Your task to perform on an android device: toggle data saver in the chrome app Image 0: 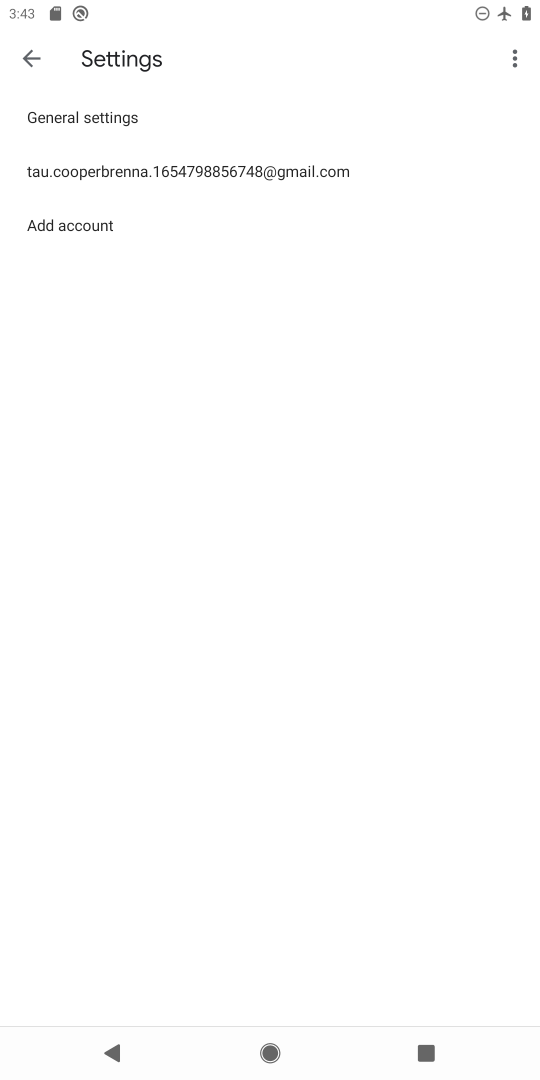
Step 0: press home button
Your task to perform on an android device: toggle data saver in the chrome app Image 1: 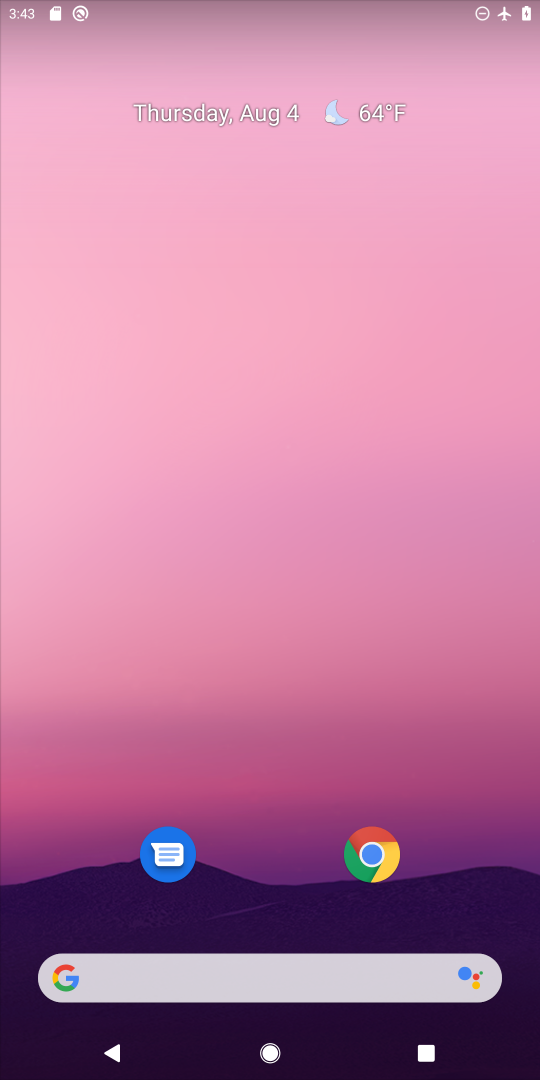
Step 1: click (387, 863)
Your task to perform on an android device: toggle data saver in the chrome app Image 2: 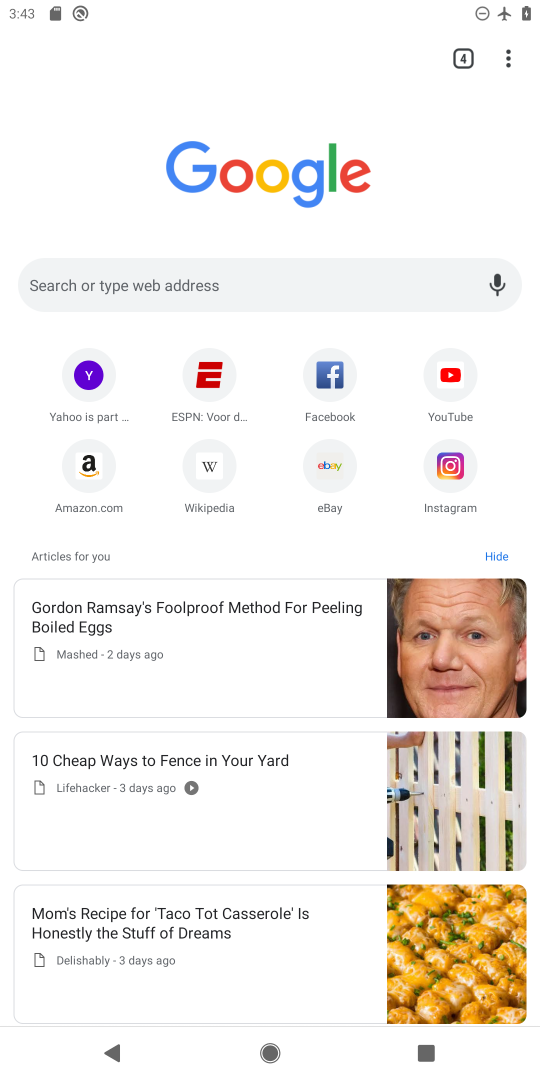
Step 2: click (503, 59)
Your task to perform on an android device: toggle data saver in the chrome app Image 3: 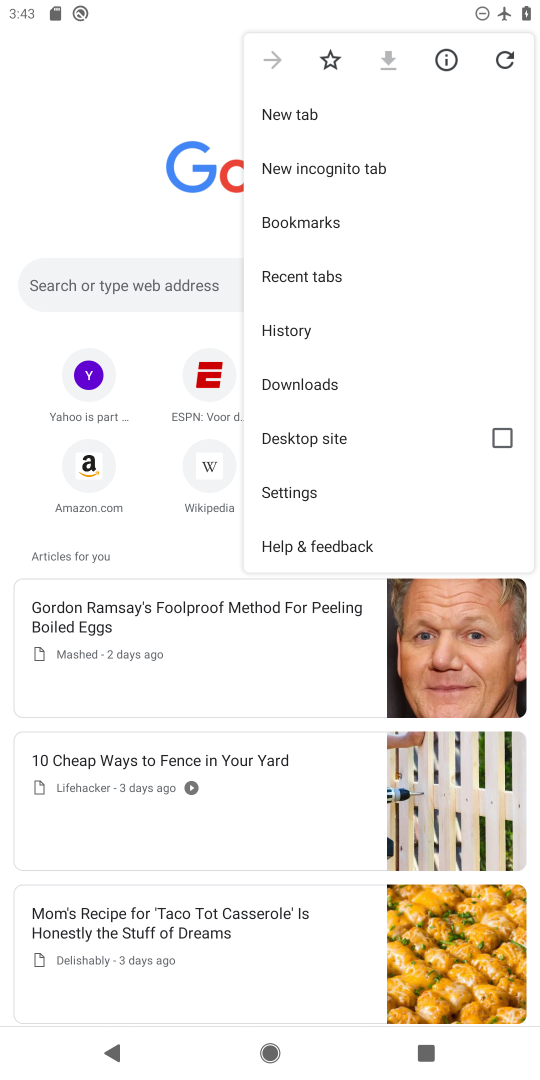
Step 3: click (300, 498)
Your task to perform on an android device: toggle data saver in the chrome app Image 4: 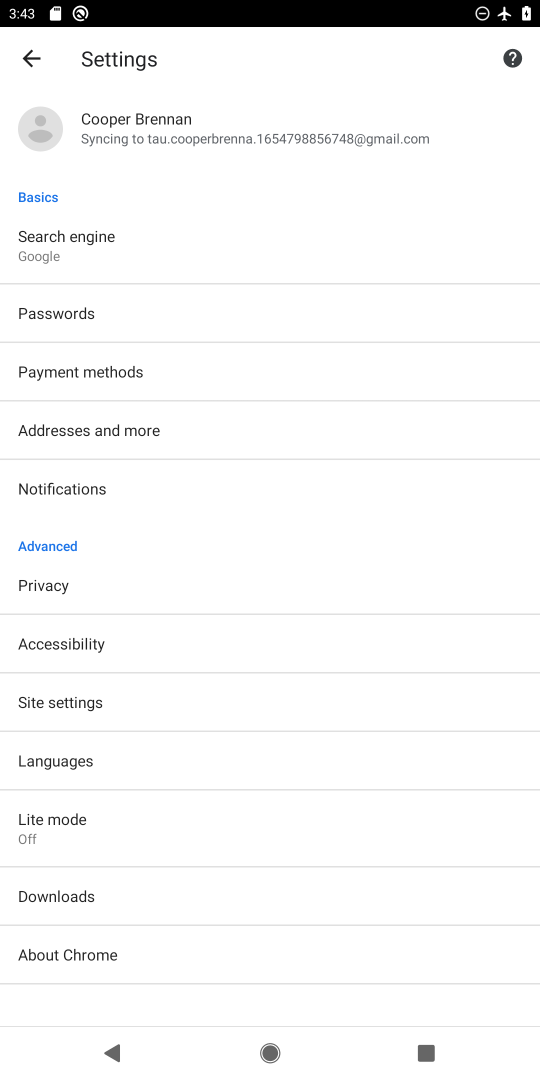
Step 4: task complete